Your task to perform on an android device: What's on my calendar tomorrow? Image 0: 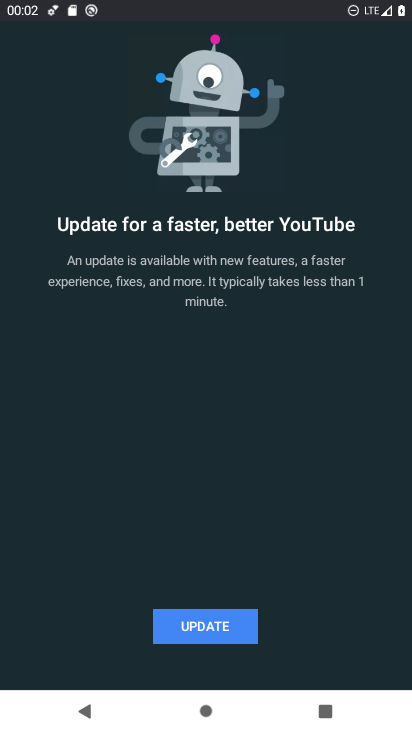
Step 0: press home button
Your task to perform on an android device: What's on my calendar tomorrow? Image 1: 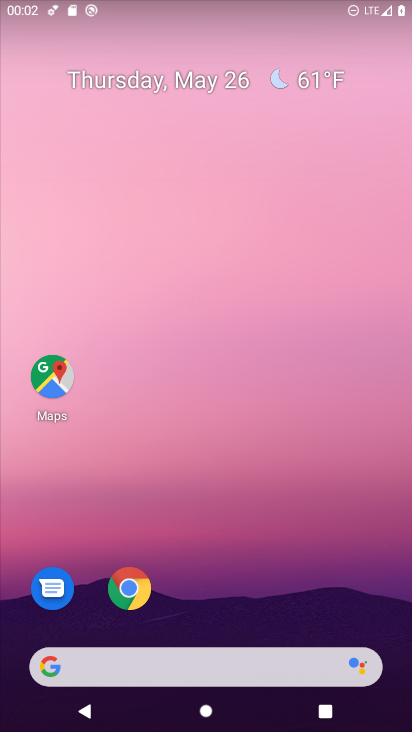
Step 1: drag from (248, 551) to (146, 24)
Your task to perform on an android device: What's on my calendar tomorrow? Image 2: 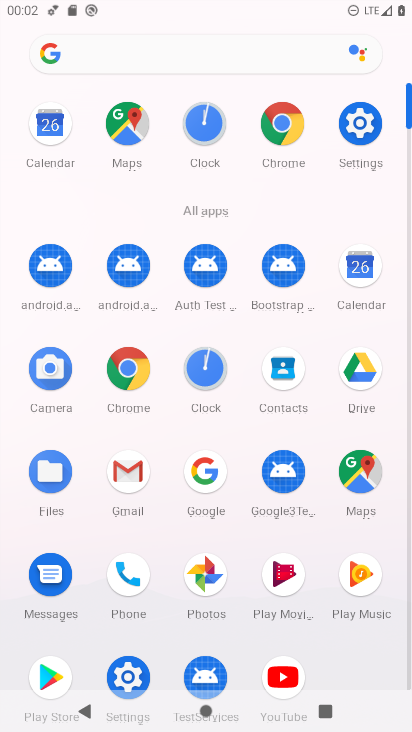
Step 2: click (362, 253)
Your task to perform on an android device: What's on my calendar tomorrow? Image 3: 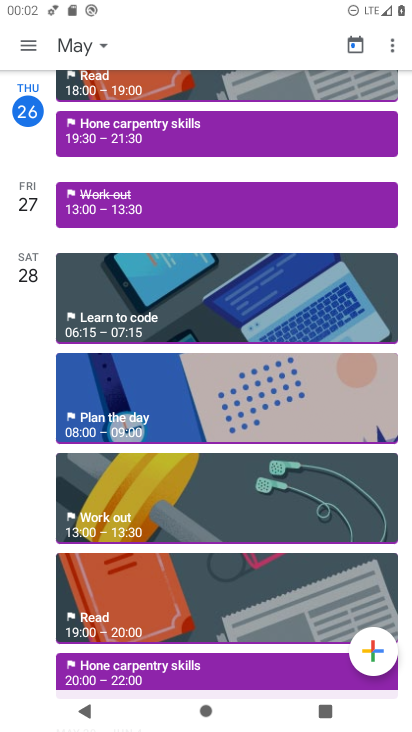
Step 3: click (28, 45)
Your task to perform on an android device: What's on my calendar tomorrow? Image 4: 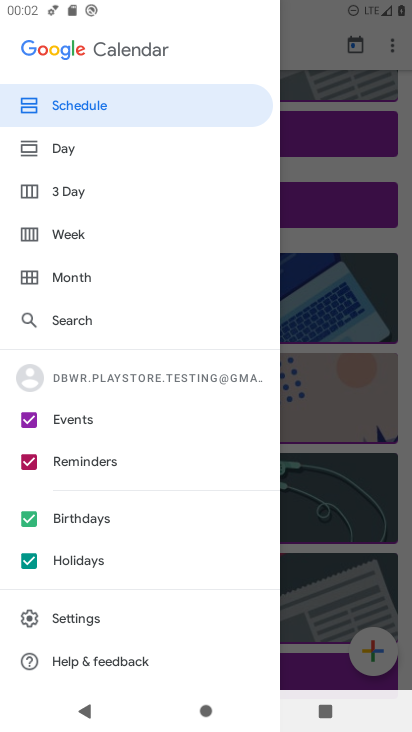
Step 4: click (54, 139)
Your task to perform on an android device: What's on my calendar tomorrow? Image 5: 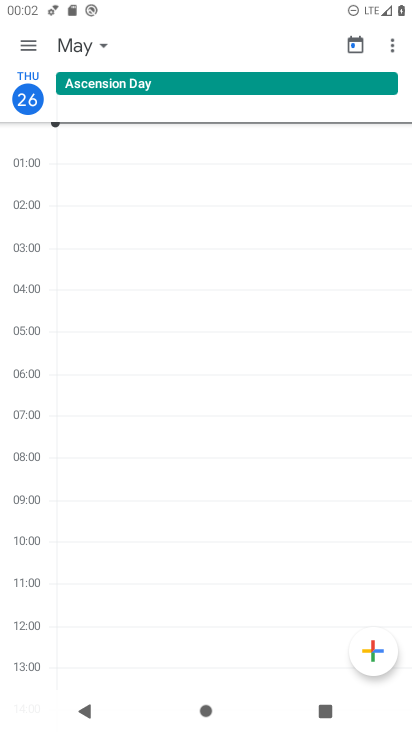
Step 5: click (97, 40)
Your task to perform on an android device: What's on my calendar tomorrow? Image 6: 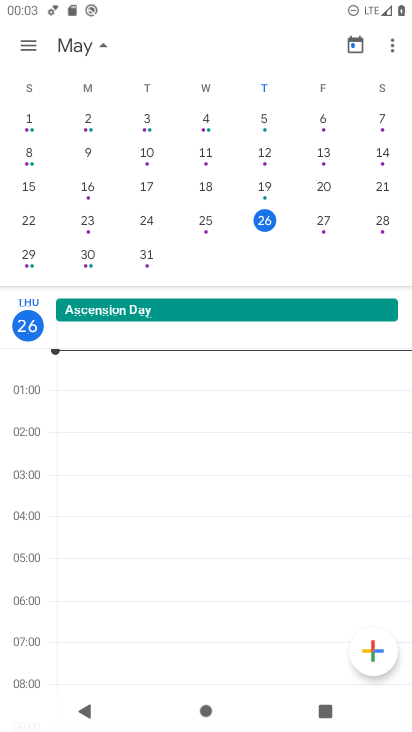
Step 6: click (261, 222)
Your task to perform on an android device: What's on my calendar tomorrow? Image 7: 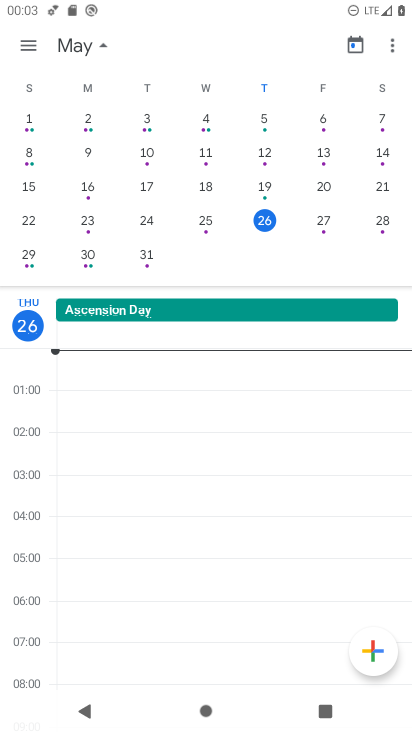
Step 7: task complete